Your task to perform on an android device: Show the shopping cart on amazon. Search for jbl flip 4 on amazon, select the first entry, add it to the cart, then select checkout. Image 0: 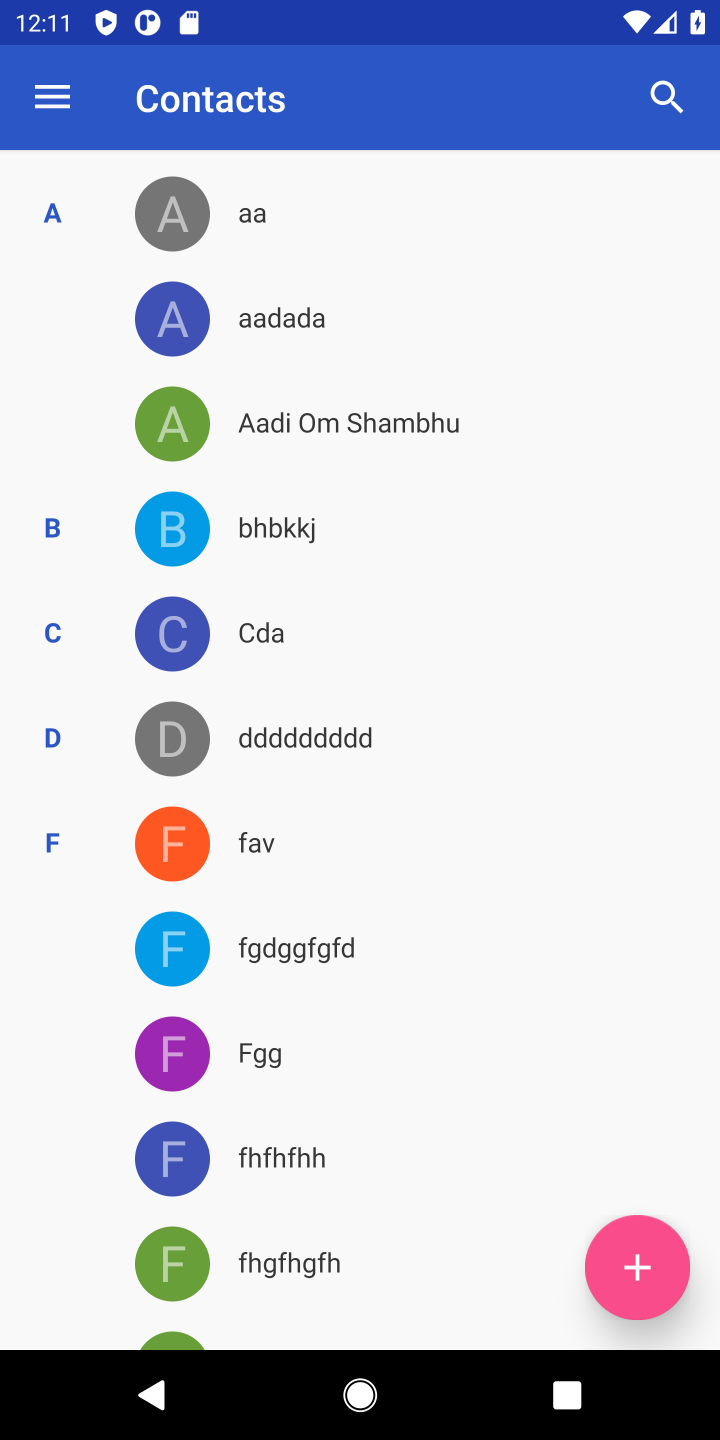
Step 0: press home button
Your task to perform on an android device: Show the shopping cart on amazon. Search for jbl flip 4 on amazon, select the first entry, add it to the cart, then select checkout. Image 1: 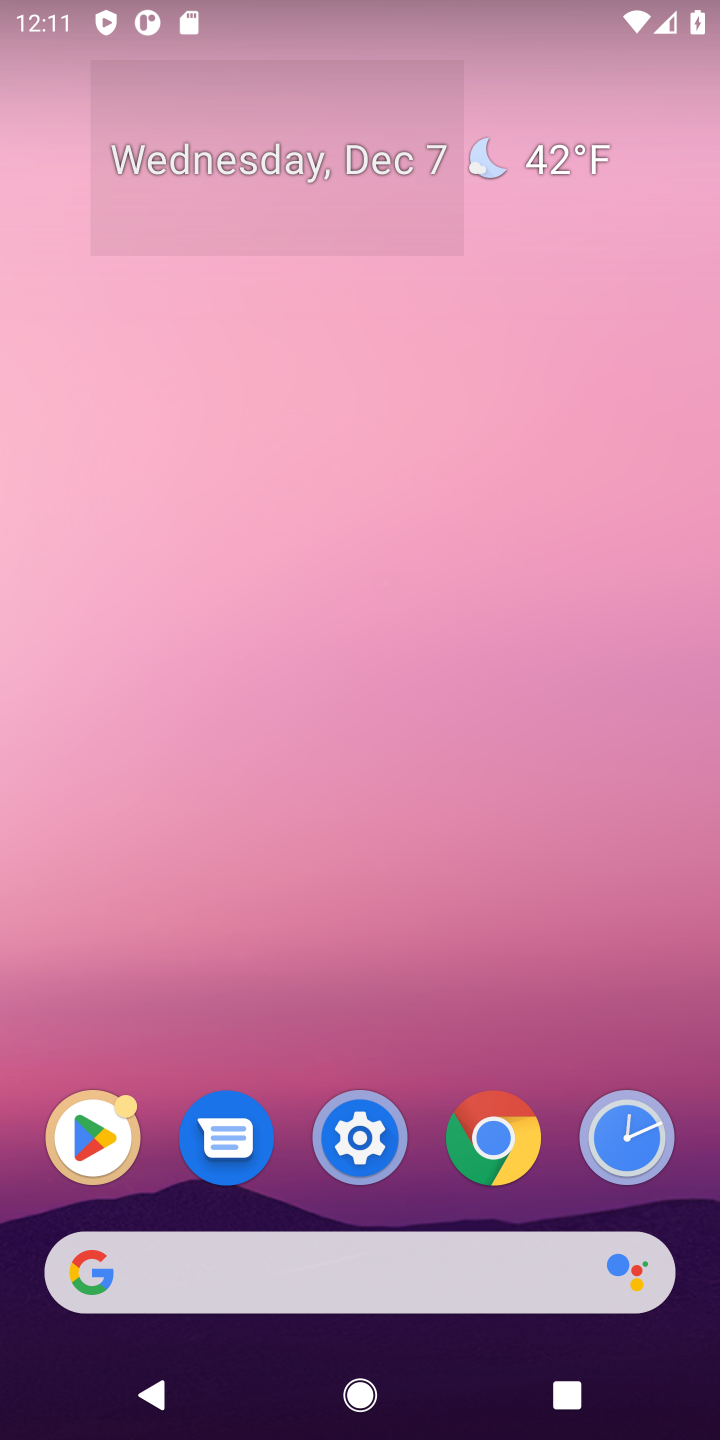
Step 1: click (274, 1279)
Your task to perform on an android device: Show the shopping cart on amazon. Search for jbl flip 4 on amazon, select the first entry, add it to the cart, then select checkout. Image 2: 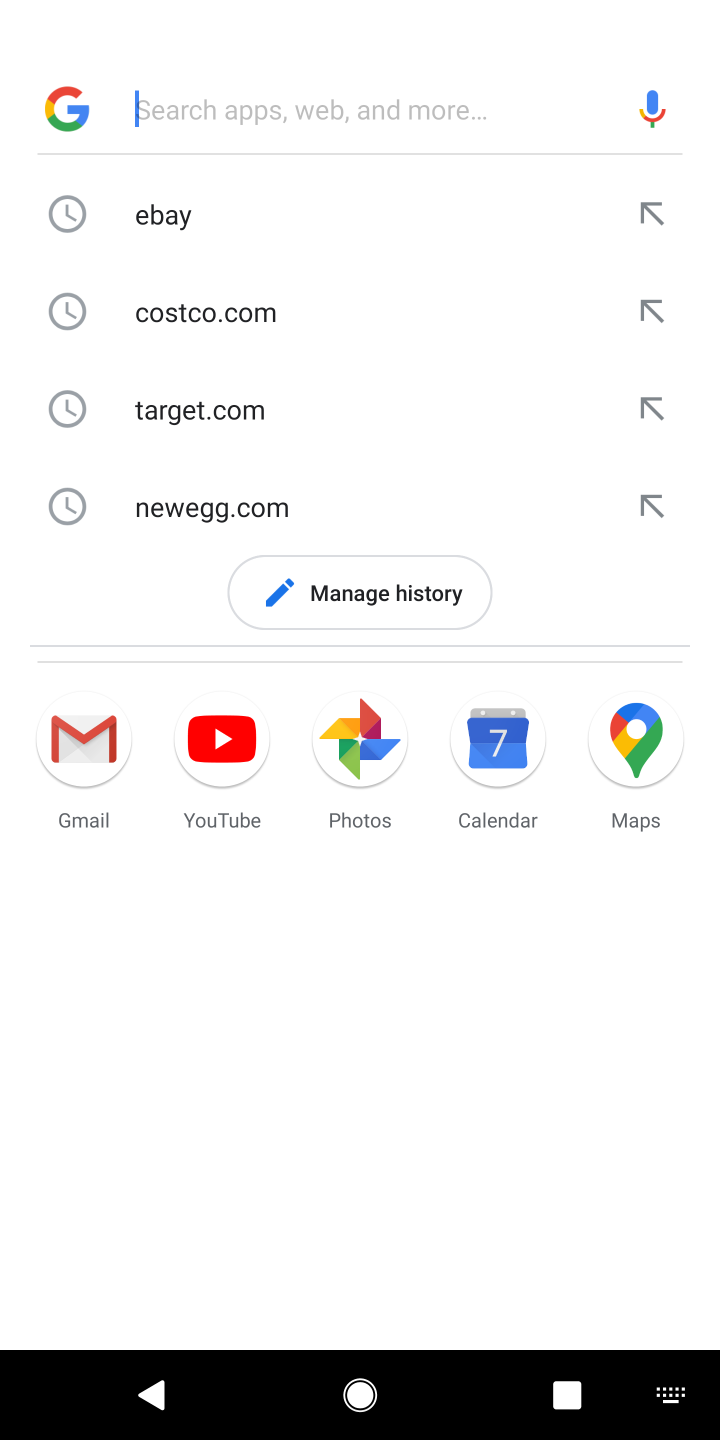
Step 2: type "amazon"
Your task to perform on an android device: Show the shopping cart on amazon. Search for jbl flip 4 on amazon, select the first entry, add it to the cart, then select checkout. Image 3: 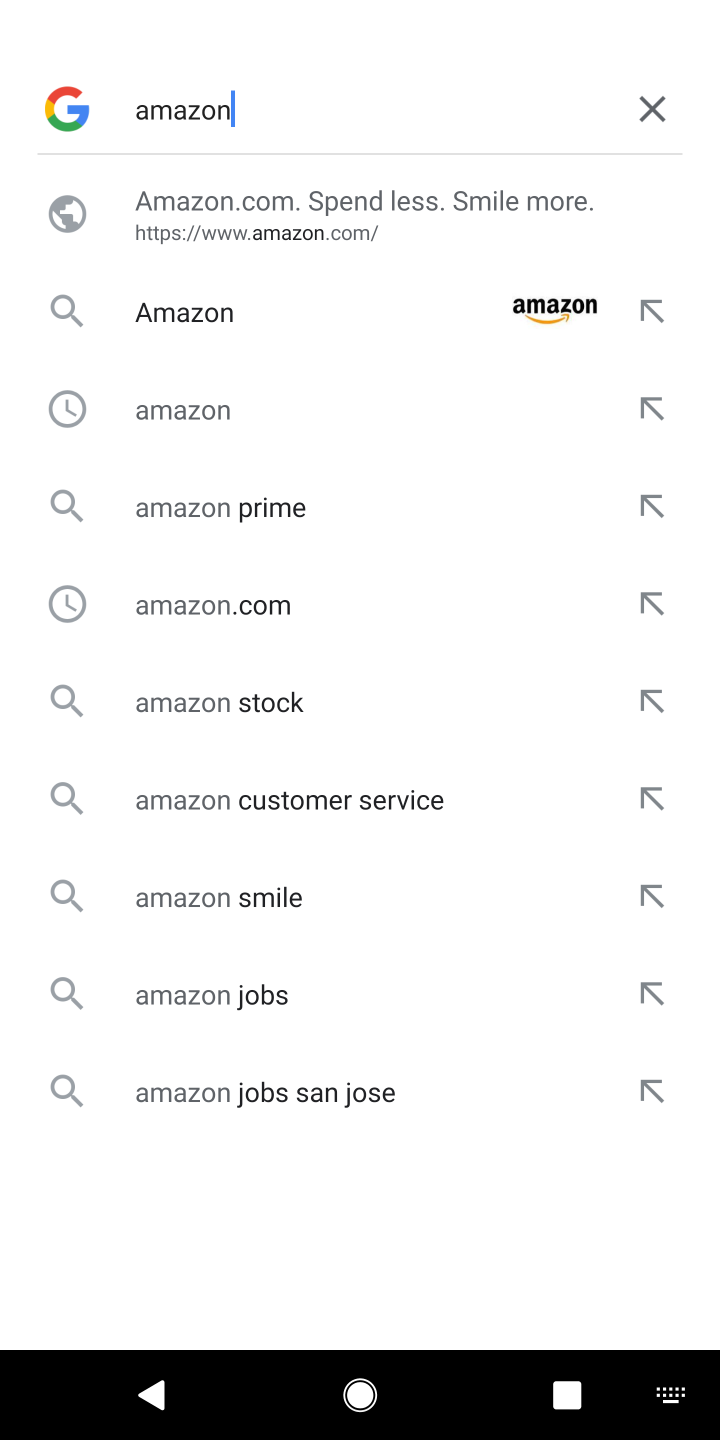
Step 3: click (196, 233)
Your task to perform on an android device: Show the shopping cart on amazon. Search for jbl flip 4 on amazon, select the first entry, add it to the cart, then select checkout. Image 4: 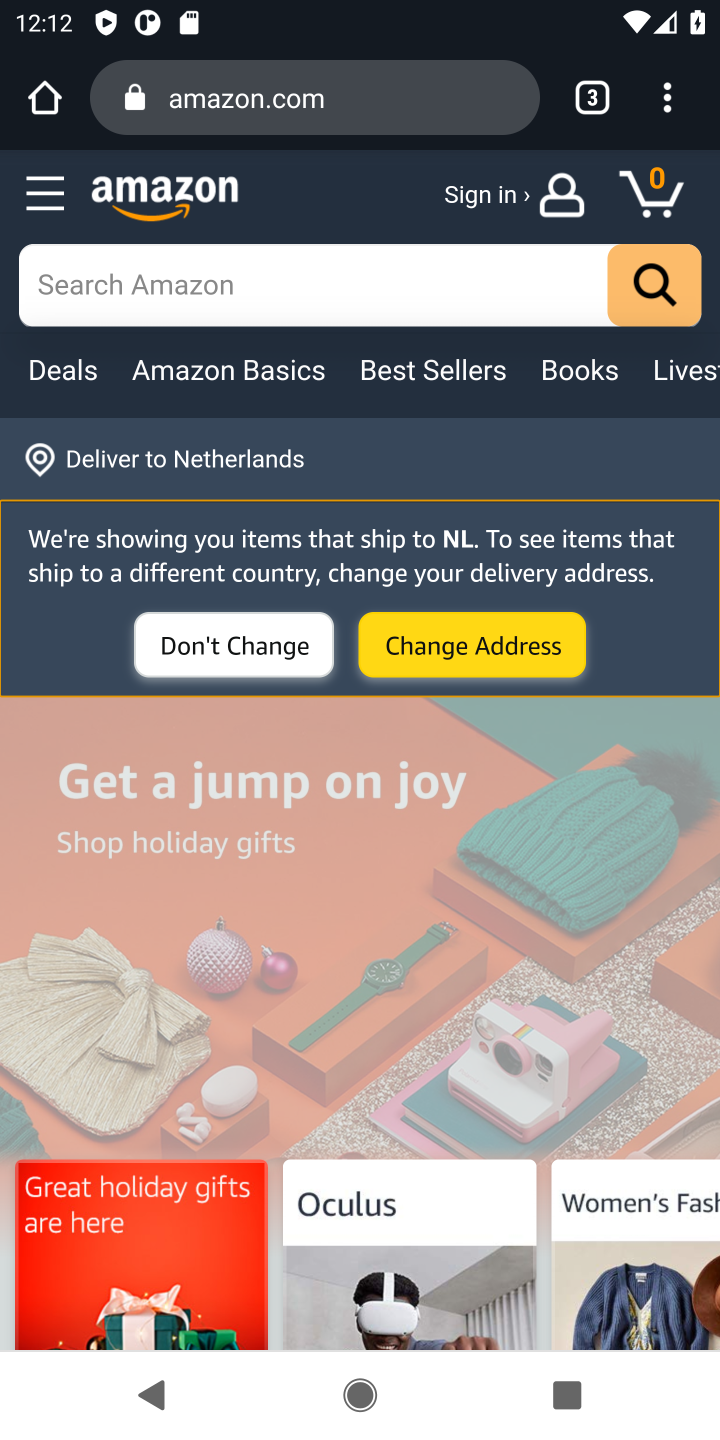
Step 4: click (286, 311)
Your task to perform on an android device: Show the shopping cart on amazon. Search for jbl flip 4 on amazon, select the first entry, add it to the cart, then select checkout. Image 5: 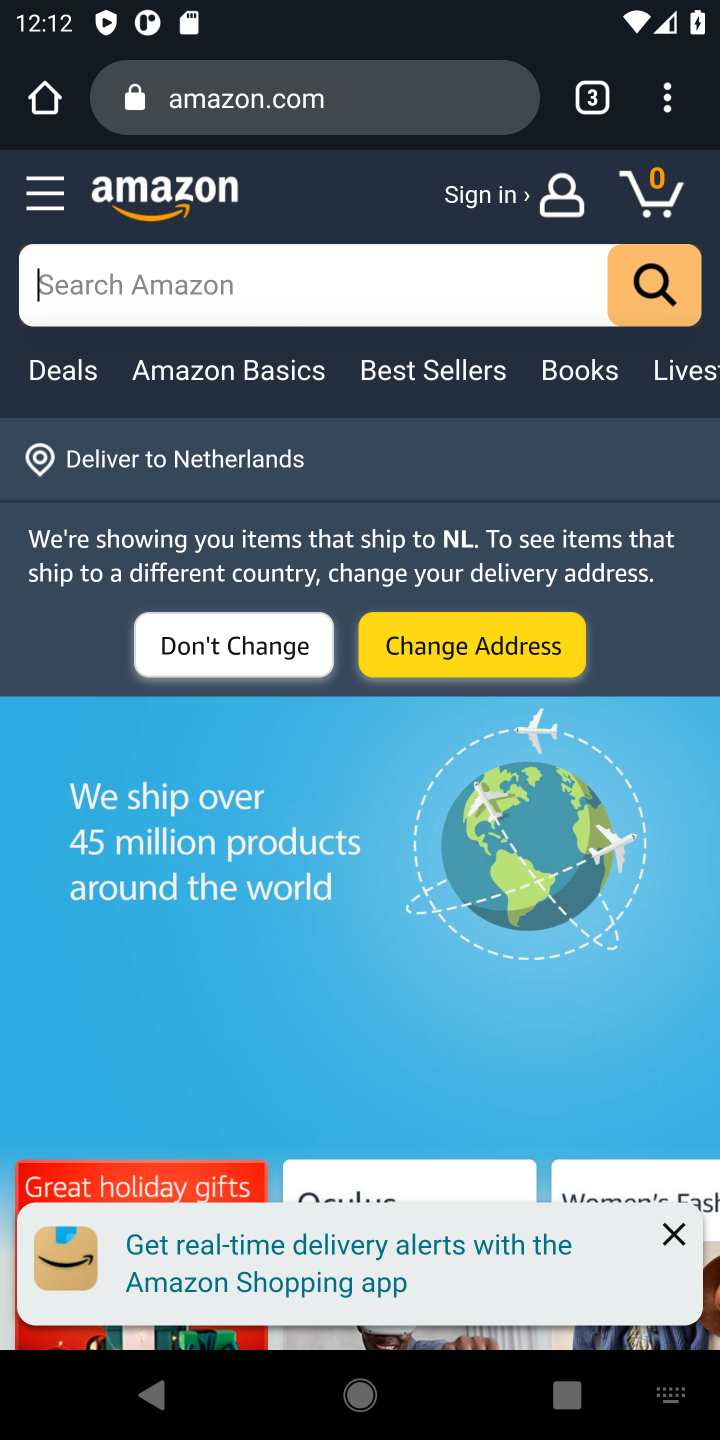
Step 5: type "jbl flip 4"
Your task to perform on an android device: Show the shopping cart on amazon. Search for jbl flip 4 on amazon, select the first entry, add it to the cart, then select checkout. Image 6: 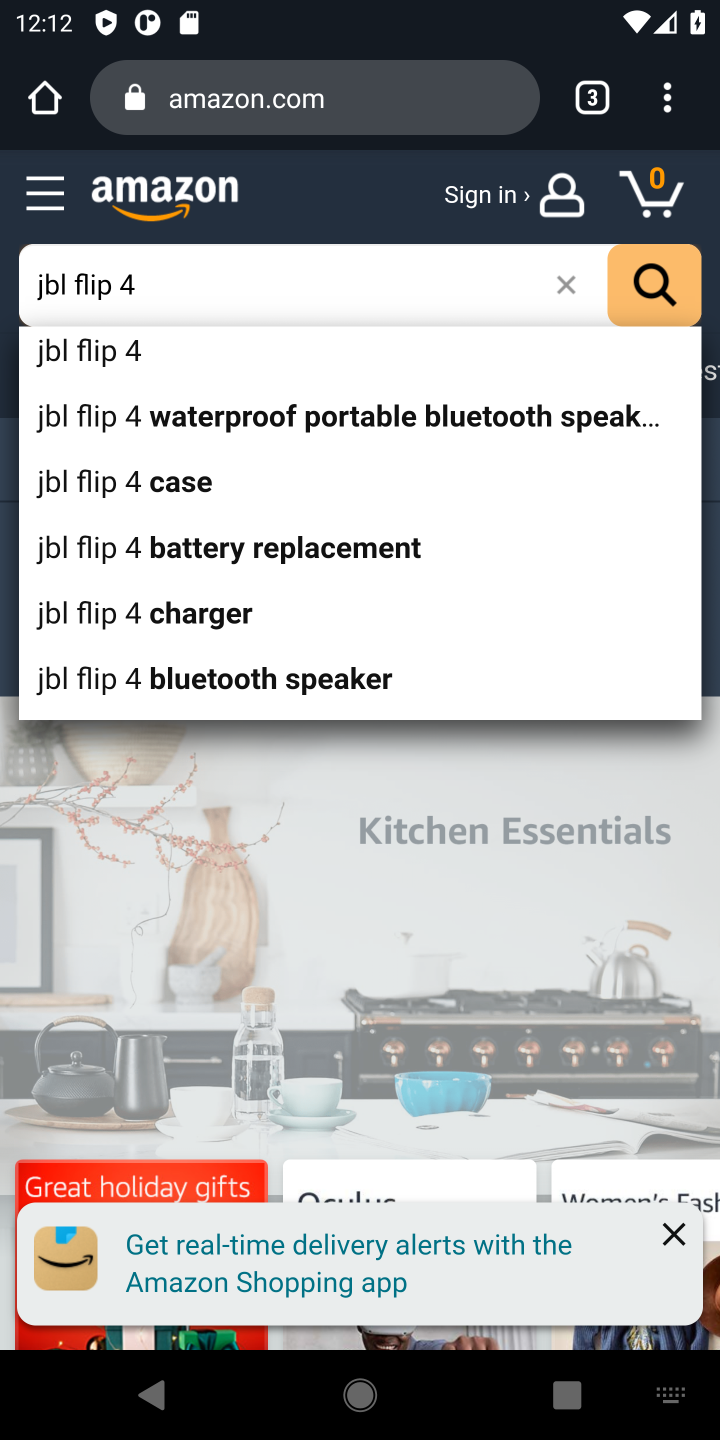
Step 6: click (123, 372)
Your task to perform on an android device: Show the shopping cart on amazon. Search for jbl flip 4 on amazon, select the first entry, add it to the cart, then select checkout. Image 7: 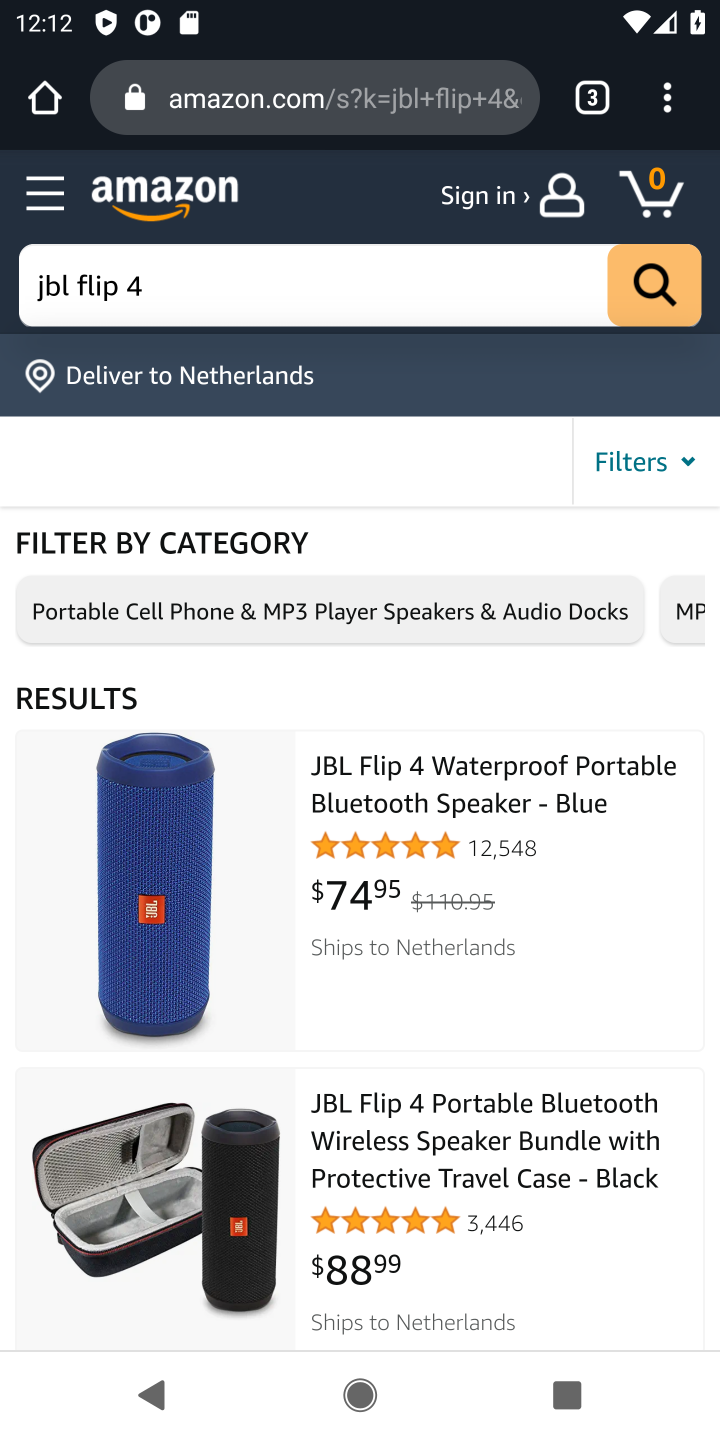
Step 7: click (377, 757)
Your task to perform on an android device: Show the shopping cart on amazon. Search for jbl flip 4 on amazon, select the first entry, add it to the cart, then select checkout. Image 8: 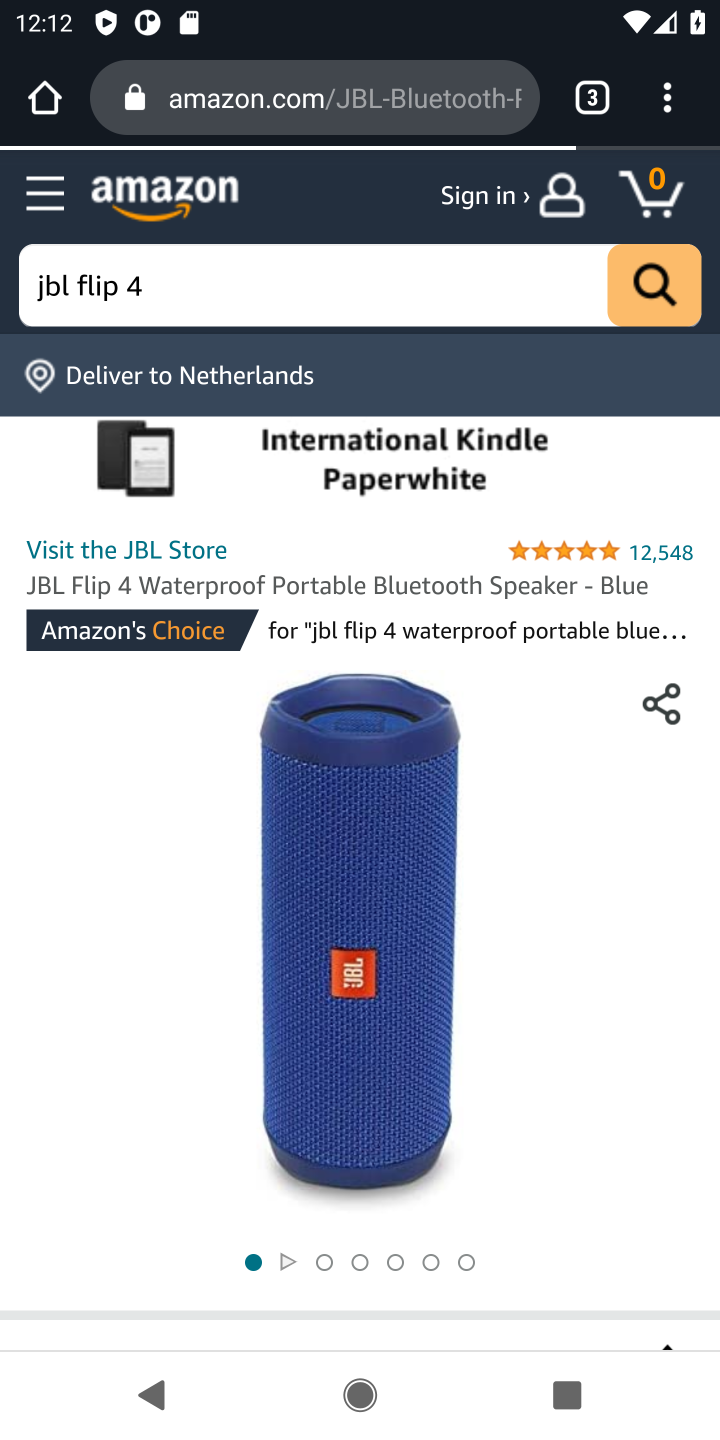
Step 8: drag from (438, 1040) to (10, 293)
Your task to perform on an android device: Show the shopping cart on amazon. Search for jbl flip 4 on amazon, select the first entry, add it to the cart, then select checkout. Image 9: 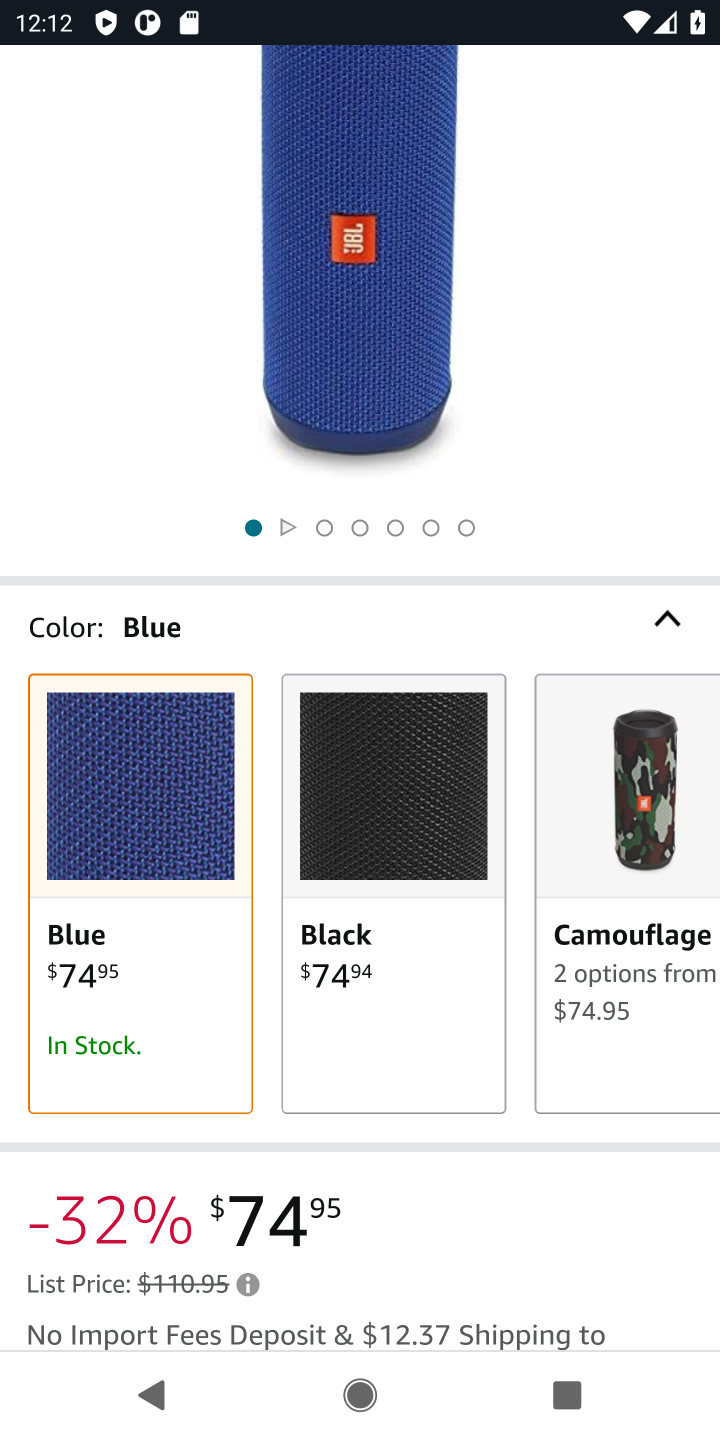
Step 9: drag from (516, 1251) to (269, 440)
Your task to perform on an android device: Show the shopping cart on amazon. Search for jbl flip 4 on amazon, select the first entry, add it to the cart, then select checkout. Image 10: 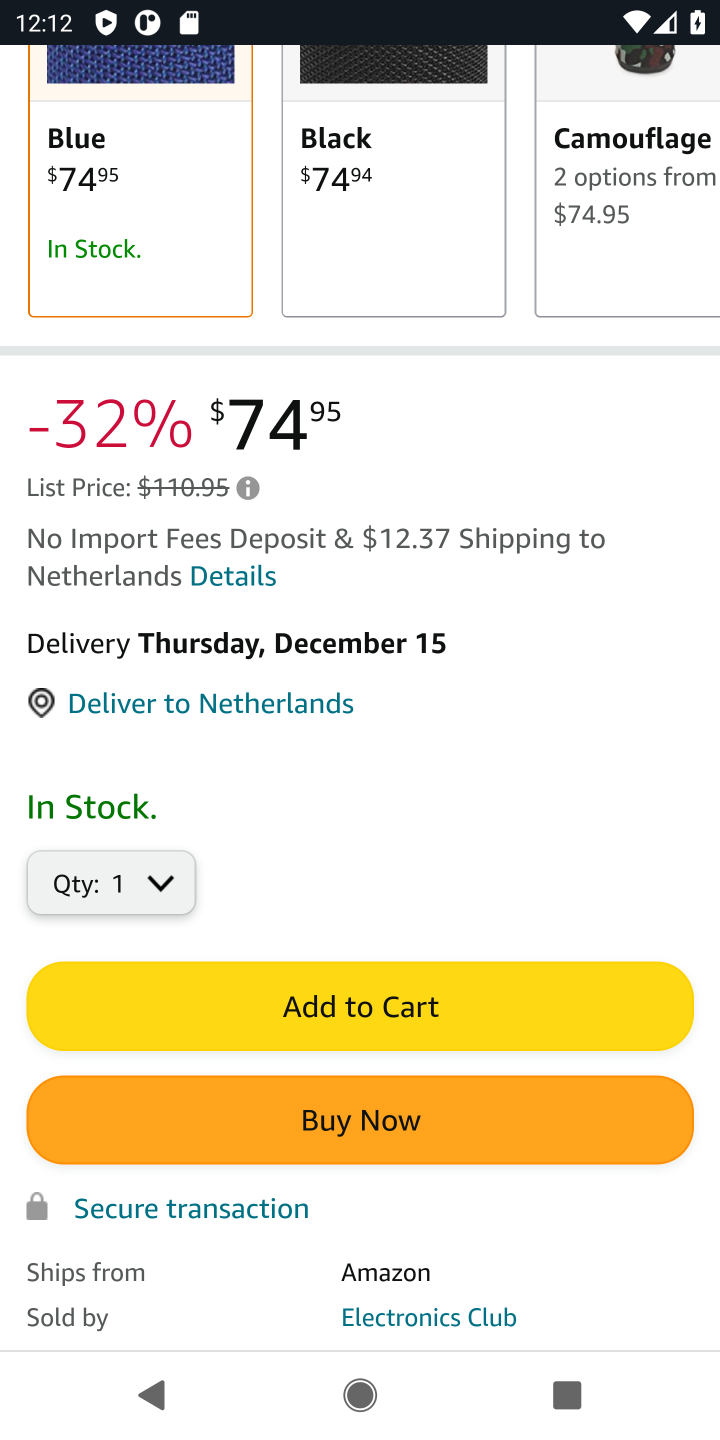
Step 10: click (304, 1012)
Your task to perform on an android device: Show the shopping cart on amazon. Search for jbl flip 4 on amazon, select the first entry, add it to the cart, then select checkout. Image 11: 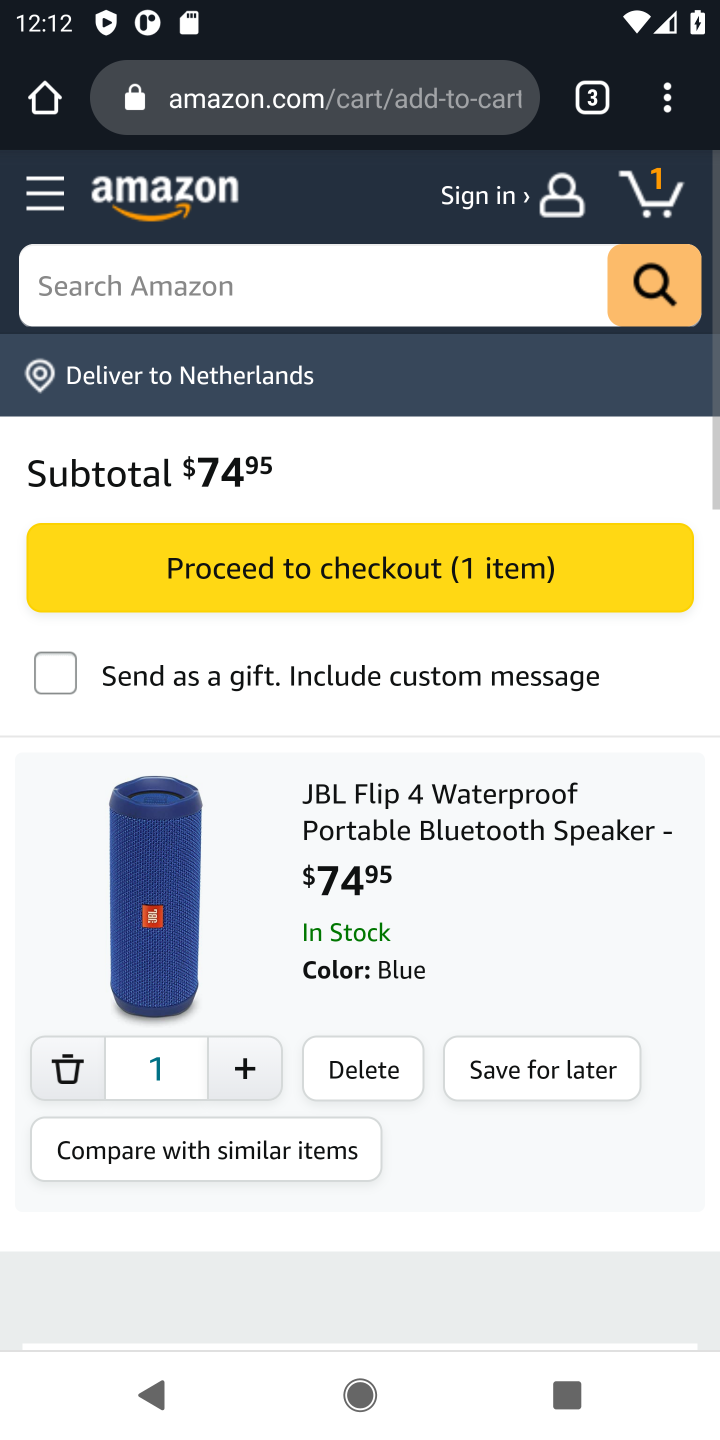
Step 11: task complete